Your task to perform on an android device: What's the weather? Image 0: 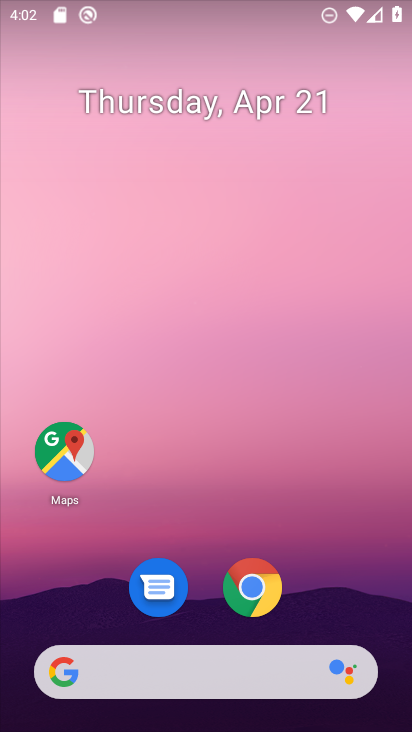
Step 0: click (199, 671)
Your task to perform on an android device: What's the weather? Image 1: 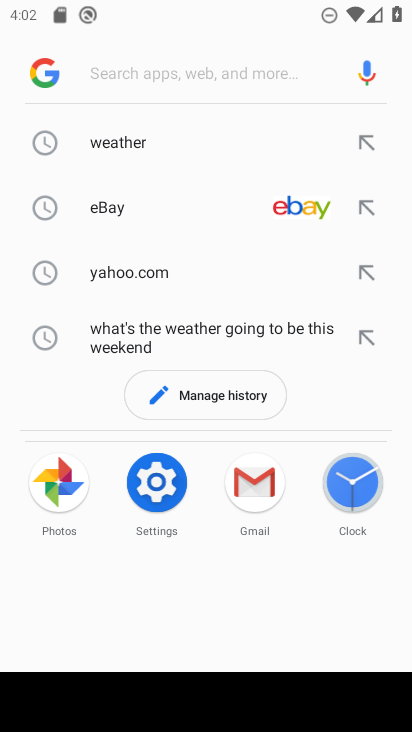
Step 1: click (119, 142)
Your task to perform on an android device: What's the weather? Image 2: 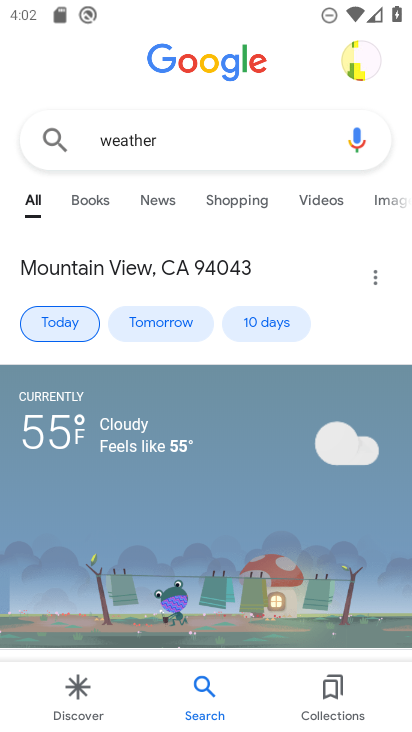
Step 2: task complete